Your task to perform on an android device: Open privacy settings Image 0: 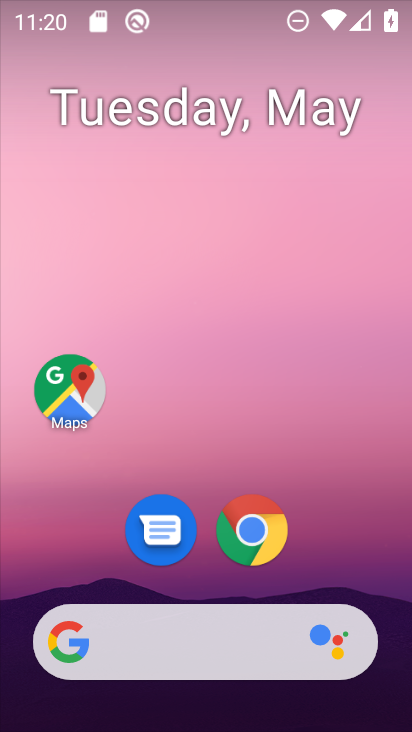
Step 0: drag from (311, 487) to (272, 121)
Your task to perform on an android device: Open privacy settings Image 1: 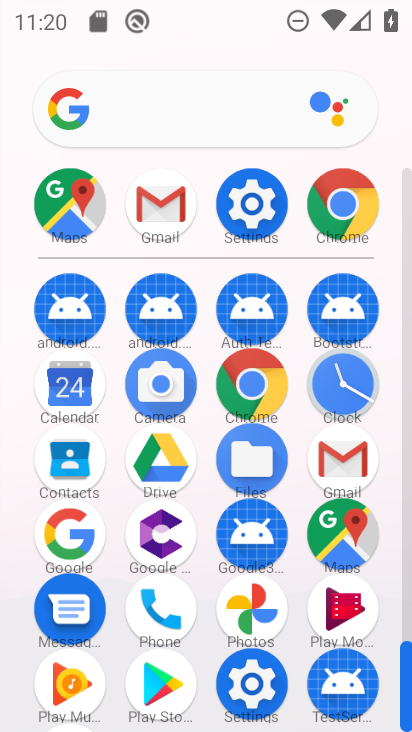
Step 1: click (243, 212)
Your task to perform on an android device: Open privacy settings Image 2: 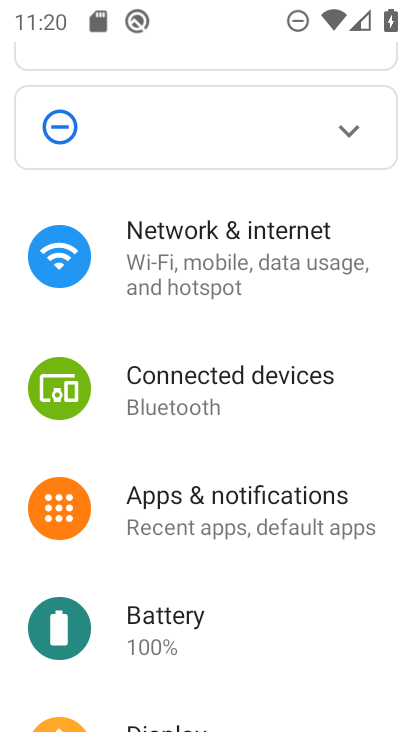
Step 2: drag from (224, 582) to (270, 81)
Your task to perform on an android device: Open privacy settings Image 3: 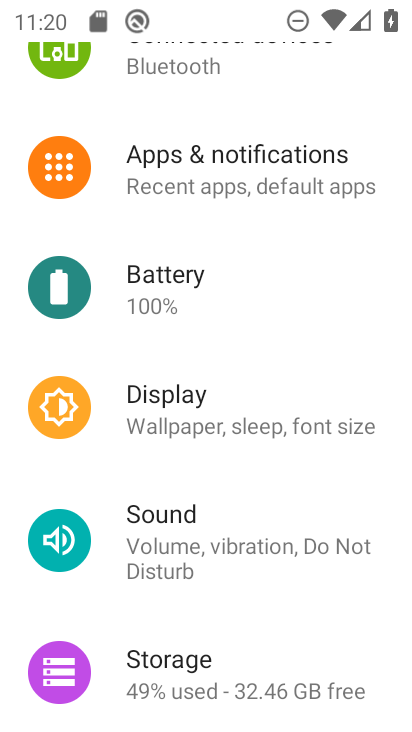
Step 3: drag from (153, 598) to (244, 98)
Your task to perform on an android device: Open privacy settings Image 4: 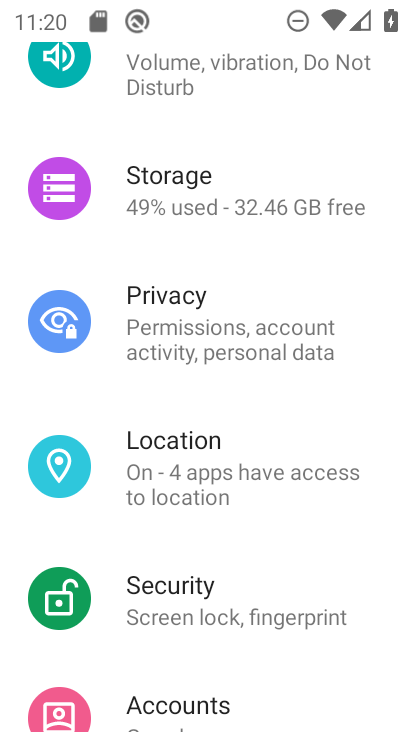
Step 4: click (165, 352)
Your task to perform on an android device: Open privacy settings Image 5: 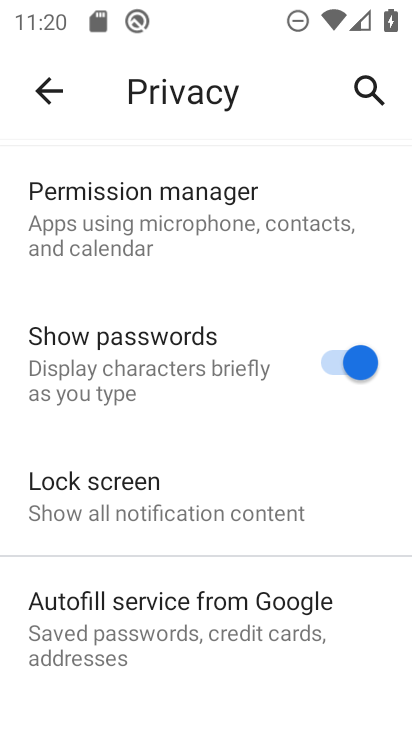
Step 5: task complete